Your task to perform on an android device: Open Amazon Image 0: 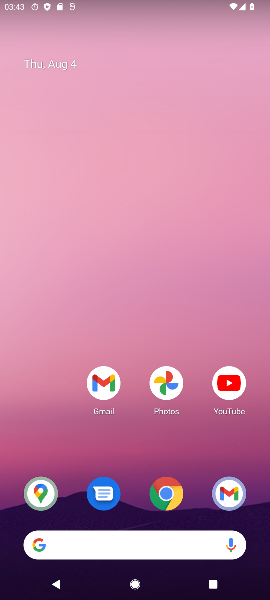
Step 0: click (80, 543)
Your task to perform on an android device: Open Amazon Image 1: 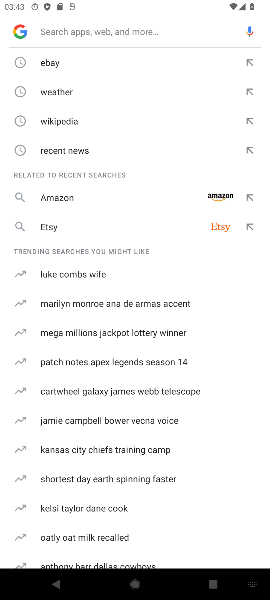
Step 1: click (84, 199)
Your task to perform on an android device: Open Amazon Image 2: 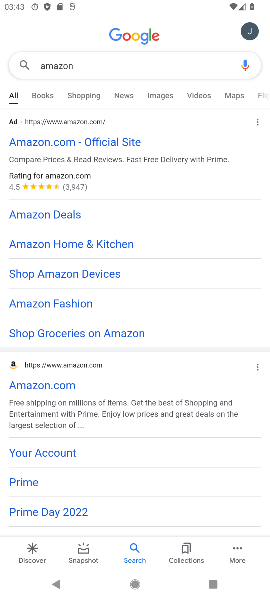
Step 2: task complete